Your task to perform on an android device: Do I have any events tomorrow? Image 0: 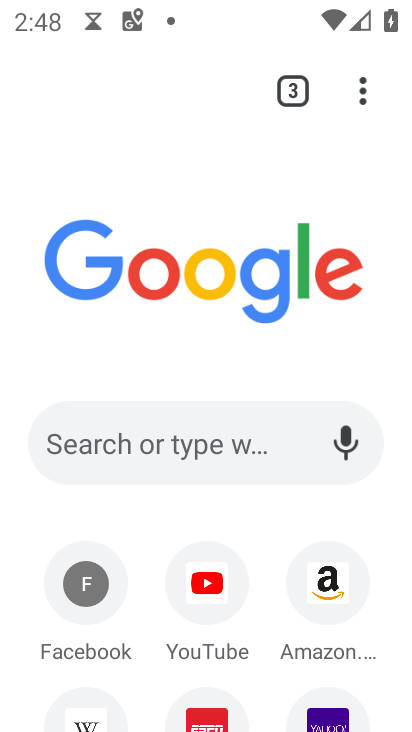
Step 0: press back button
Your task to perform on an android device: Do I have any events tomorrow? Image 1: 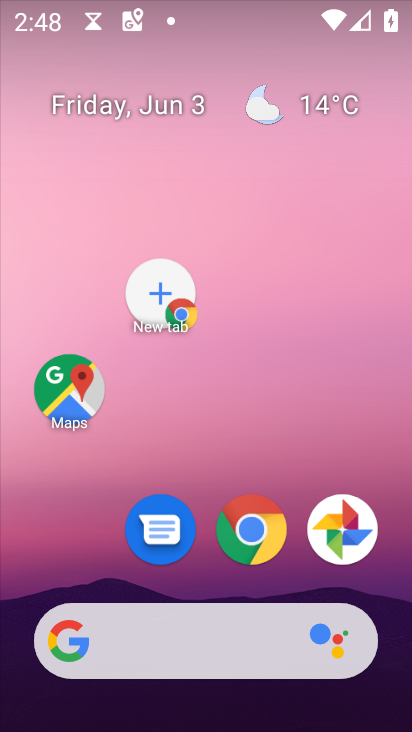
Step 1: drag from (240, 552) to (263, 121)
Your task to perform on an android device: Do I have any events tomorrow? Image 2: 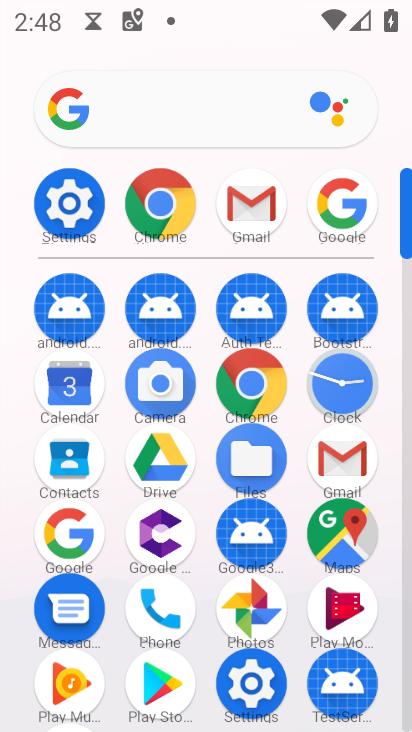
Step 2: click (63, 374)
Your task to perform on an android device: Do I have any events tomorrow? Image 3: 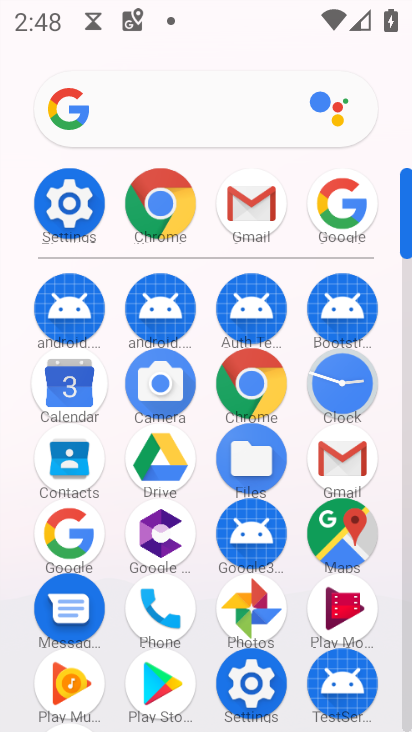
Step 3: click (63, 374)
Your task to perform on an android device: Do I have any events tomorrow? Image 4: 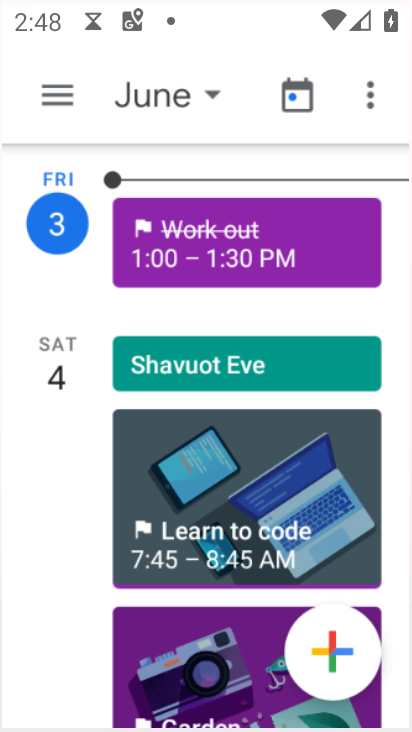
Step 4: click (65, 377)
Your task to perform on an android device: Do I have any events tomorrow? Image 5: 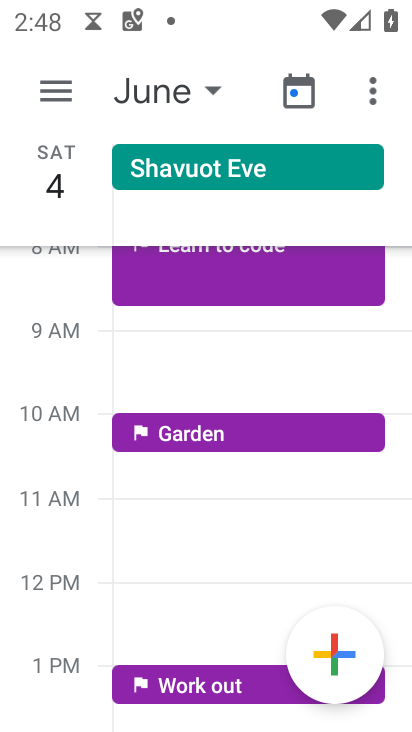
Step 5: click (215, 98)
Your task to perform on an android device: Do I have any events tomorrow? Image 6: 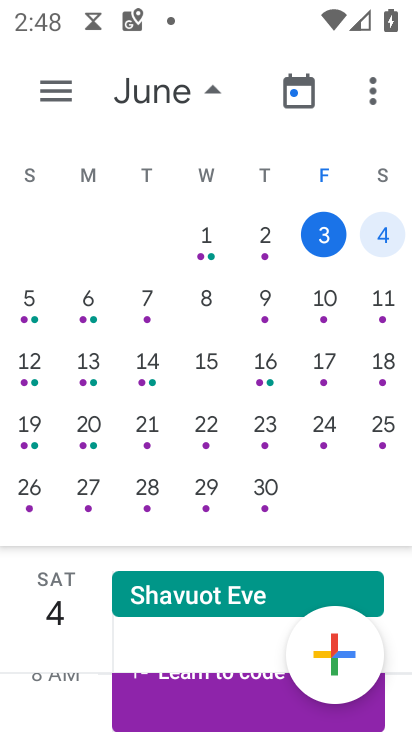
Step 6: drag from (321, 323) to (9, 413)
Your task to perform on an android device: Do I have any events tomorrow? Image 7: 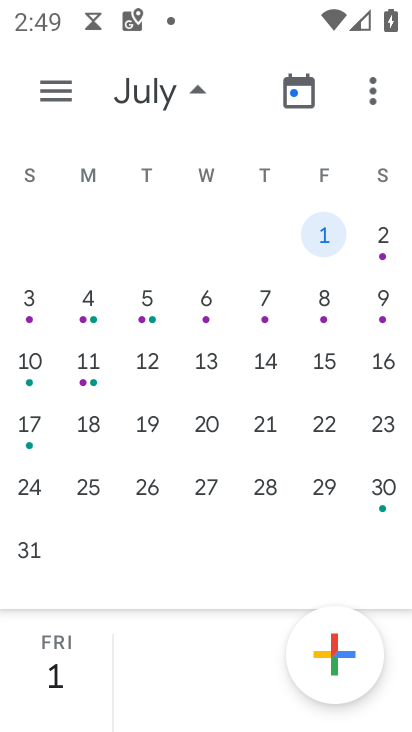
Step 7: drag from (118, 427) to (397, 408)
Your task to perform on an android device: Do I have any events tomorrow? Image 8: 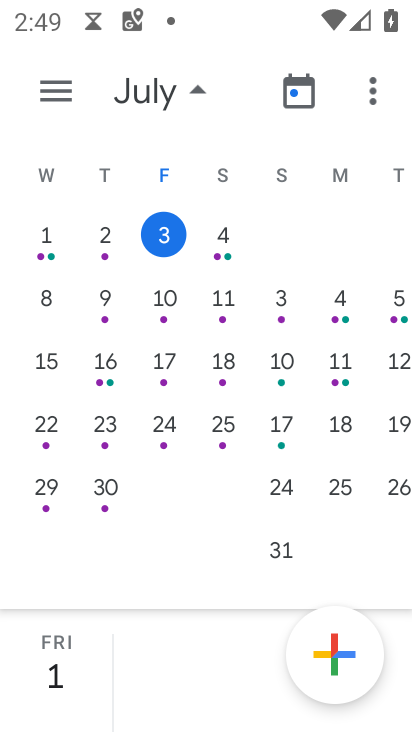
Step 8: drag from (148, 429) to (396, 433)
Your task to perform on an android device: Do I have any events tomorrow? Image 9: 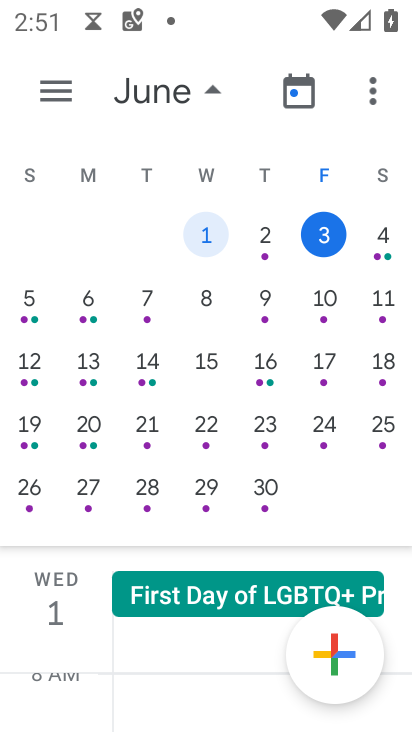
Step 9: click (386, 206)
Your task to perform on an android device: Do I have any events tomorrow? Image 10: 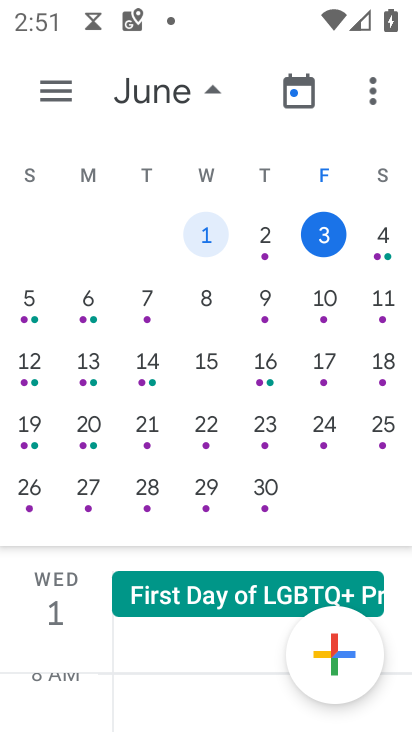
Step 10: task complete